Your task to perform on an android device: Open Wikipedia Image 0: 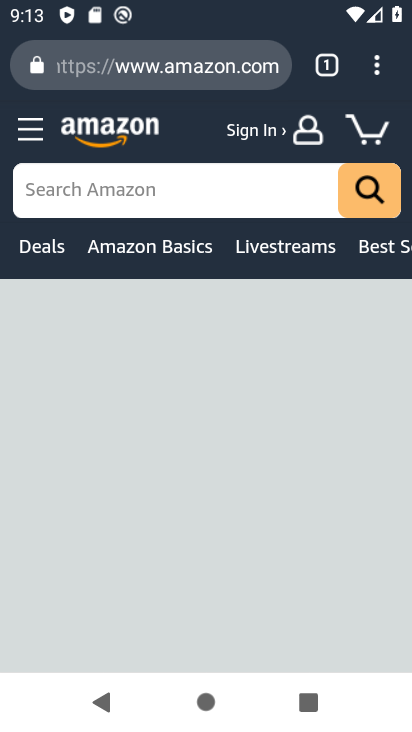
Step 0: press home button
Your task to perform on an android device: Open Wikipedia Image 1: 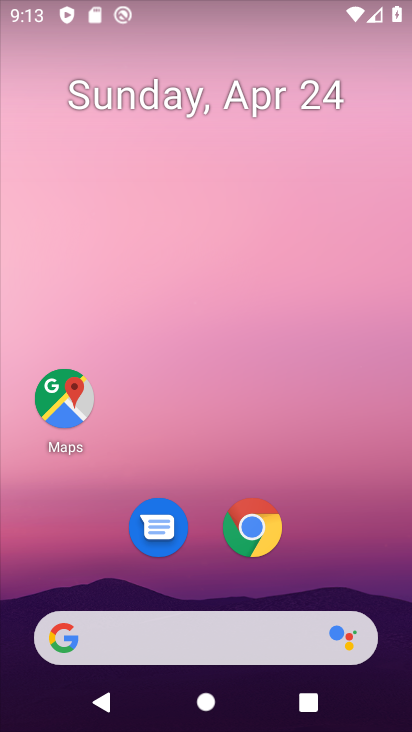
Step 1: click (246, 531)
Your task to perform on an android device: Open Wikipedia Image 2: 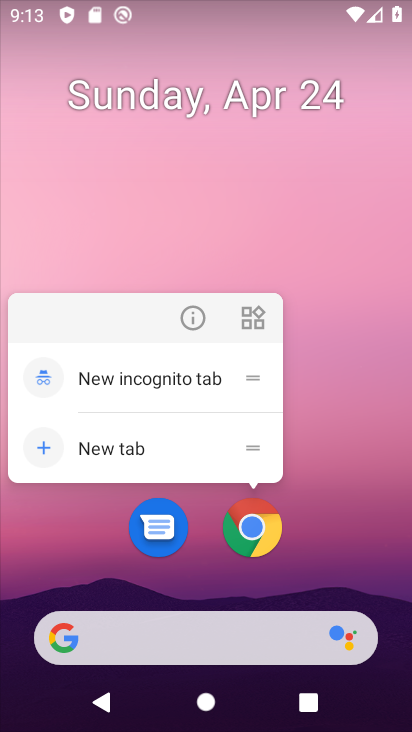
Step 2: click (246, 523)
Your task to perform on an android device: Open Wikipedia Image 3: 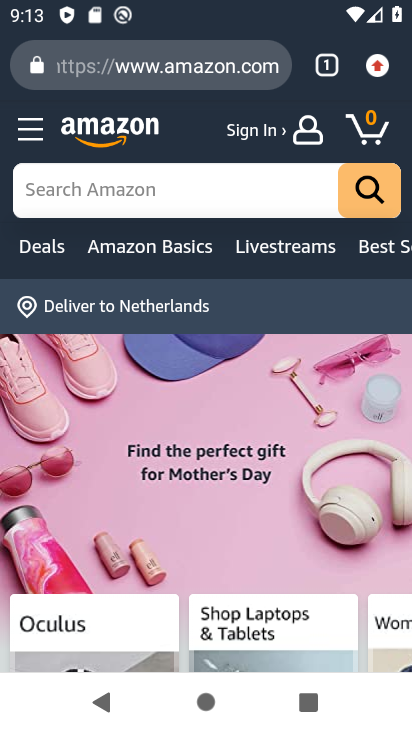
Step 3: click (330, 65)
Your task to perform on an android device: Open Wikipedia Image 4: 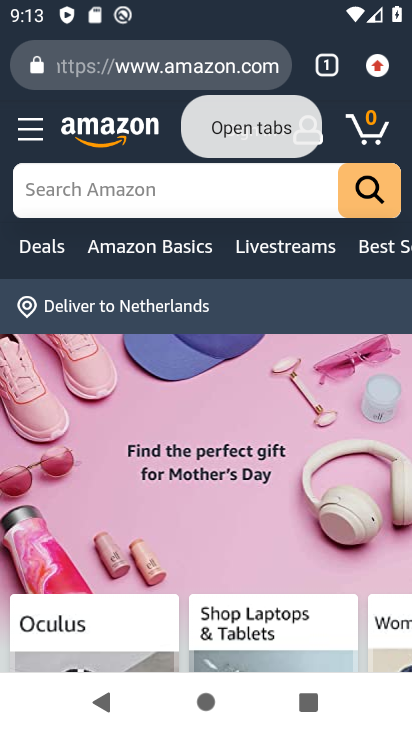
Step 4: click (328, 64)
Your task to perform on an android device: Open Wikipedia Image 5: 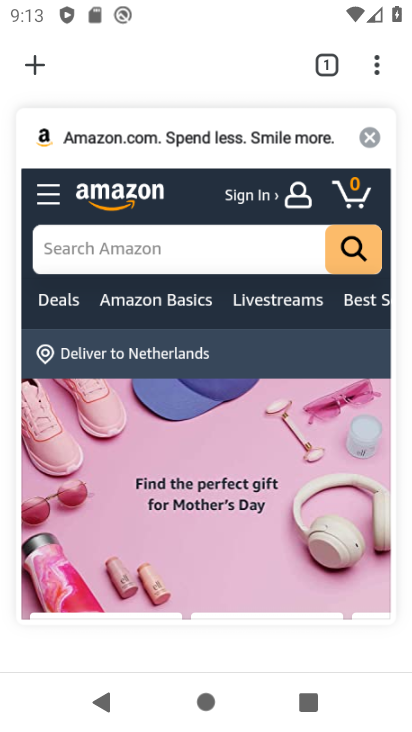
Step 5: click (46, 55)
Your task to perform on an android device: Open Wikipedia Image 6: 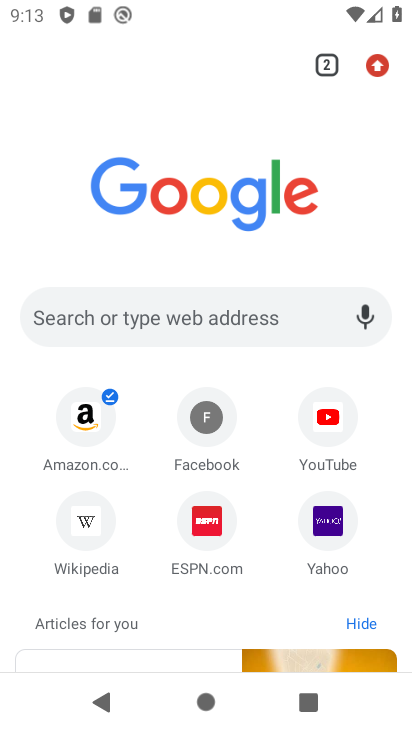
Step 6: click (88, 524)
Your task to perform on an android device: Open Wikipedia Image 7: 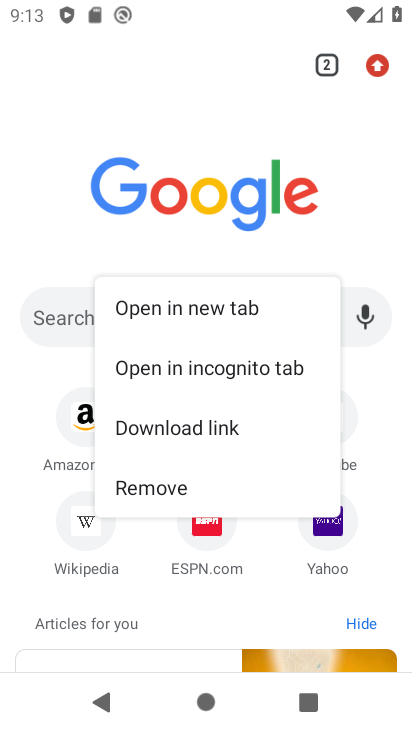
Step 7: click (81, 517)
Your task to perform on an android device: Open Wikipedia Image 8: 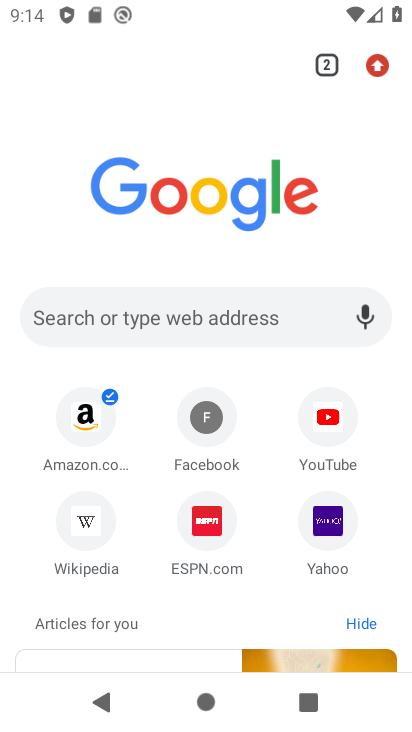
Step 8: click (84, 526)
Your task to perform on an android device: Open Wikipedia Image 9: 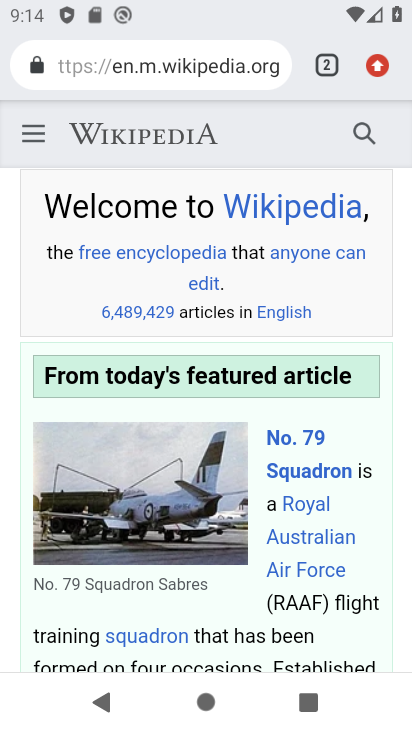
Step 9: task complete